Your task to perform on an android device: Open privacy settings Image 0: 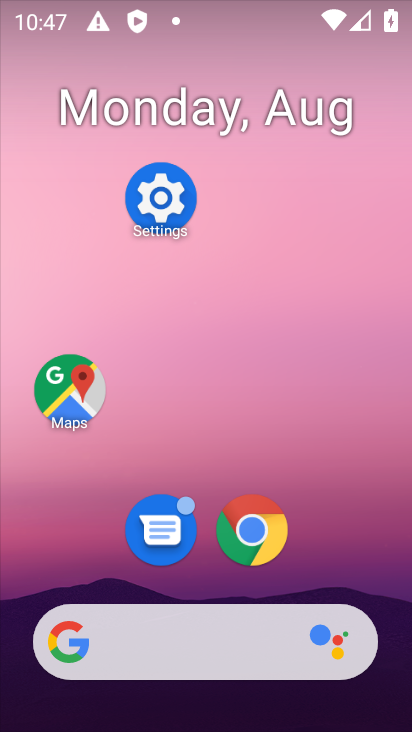
Step 0: drag from (229, 660) to (145, 435)
Your task to perform on an android device: Open privacy settings Image 1: 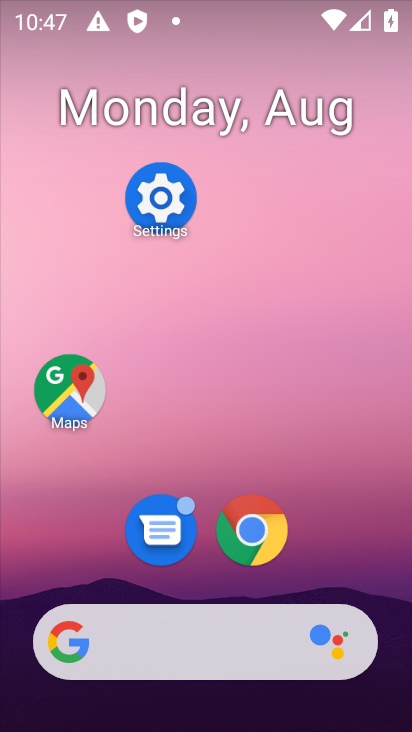
Step 1: drag from (252, 613) to (252, 248)
Your task to perform on an android device: Open privacy settings Image 2: 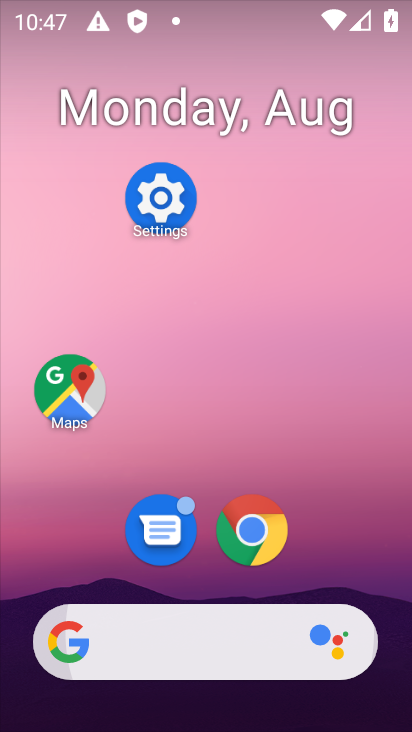
Step 2: drag from (253, 565) to (231, 267)
Your task to perform on an android device: Open privacy settings Image 3: 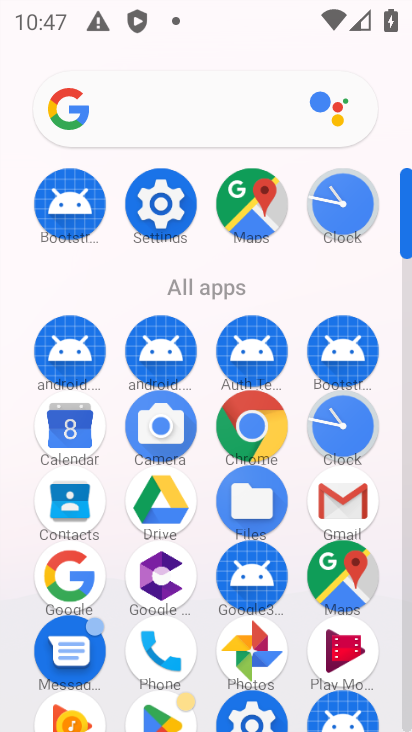
Step 3: click (160, 206)
Your task to perform on an android device: Open privacy settings Image 4: 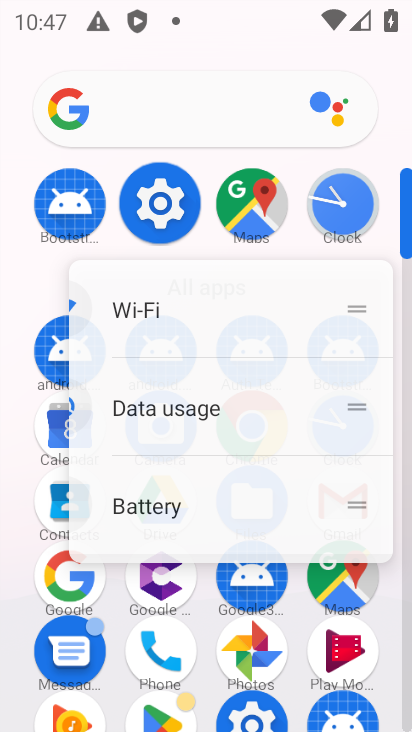
Step 4: click (159, 207)
Your task to perform on an android device: Open privacy settings Image 5: 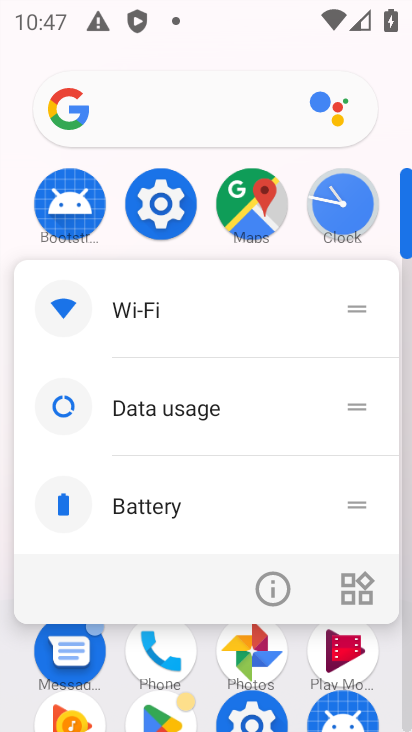
Step 5: click (164, 190)
Your task to perform on an android device: Open privacy settings Image 6: 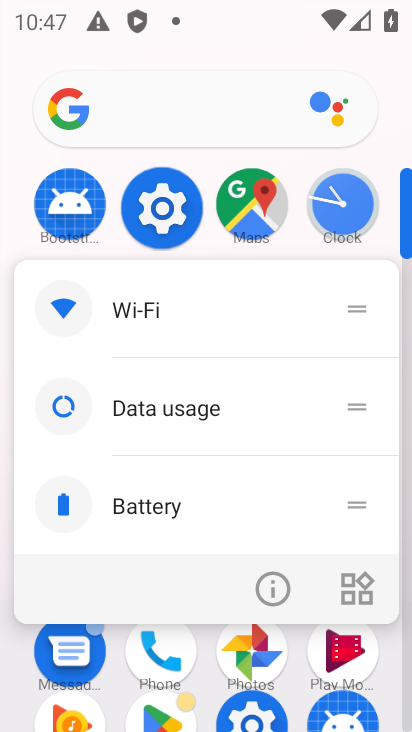
Step 6: click (164, 217)
Your task to perform on an android device: Open privacy settings Image 7: 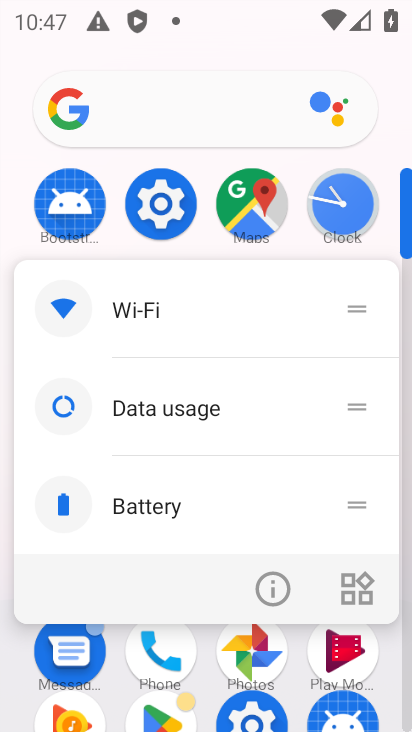
Step 7: click (163, 218)
Your task to perform on an android device: Open privacy settings Image 8: 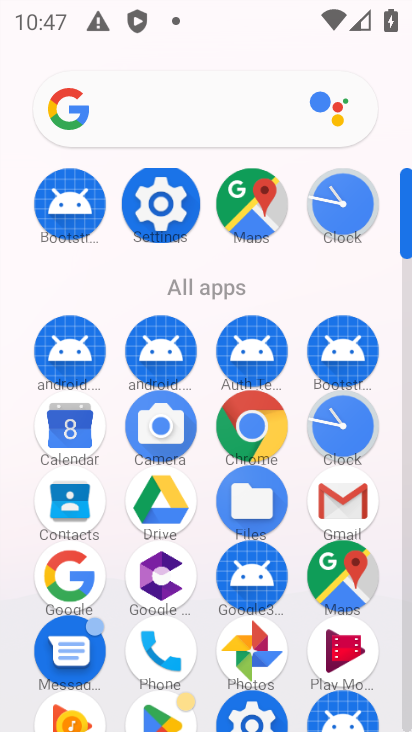
Step 8: click (162, 219)
Your task to perform on an android device: Open privacy settings Image 9: 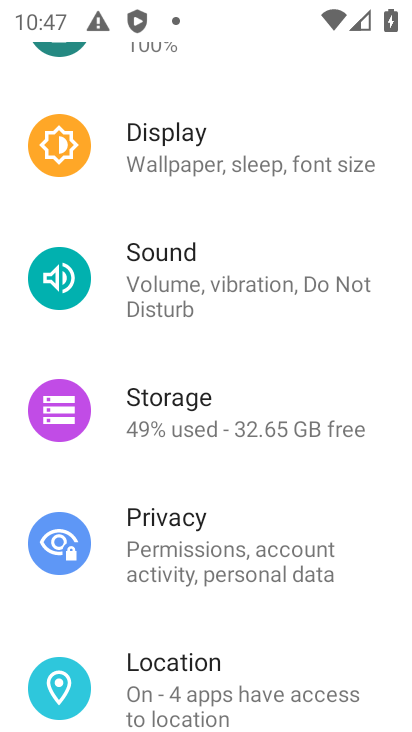
Step 9: click (162, 219)
Your task to perform on an android device: Open privacy settings Image 10: 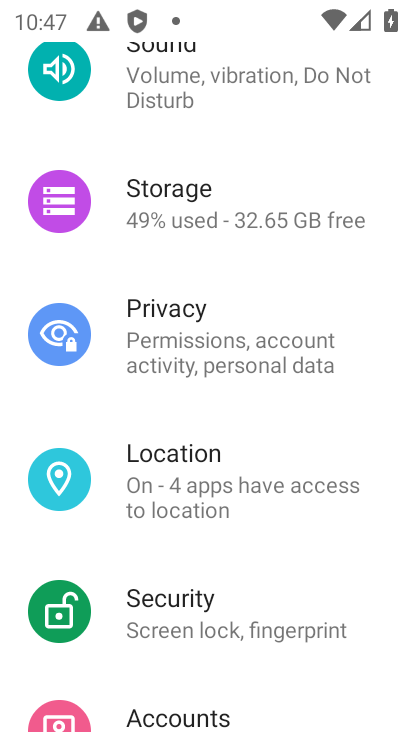
Step 10: click (162, 220)
Your task to perform on an android device: Open privacy settings Image 11: 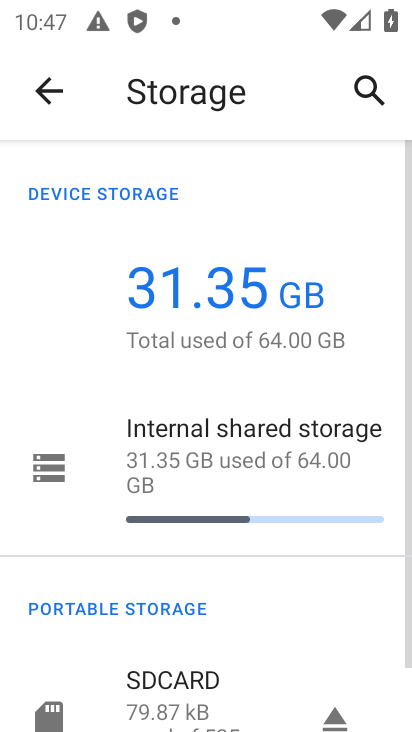
Step 11: click (42, 91)
Your task to perform on an android device: Open privacy settings Image 12: 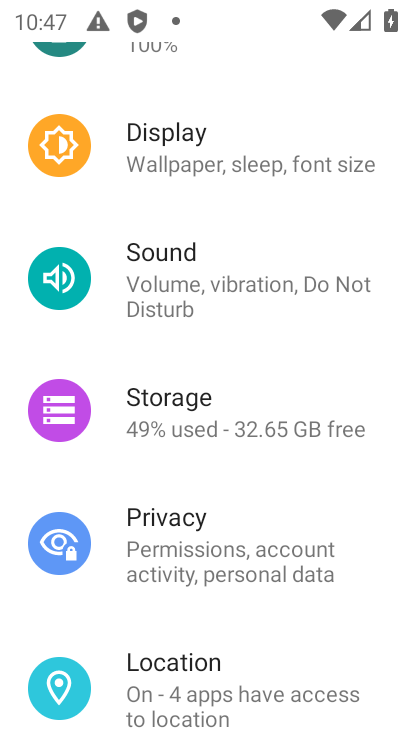
Step 12: click (163, 547)
Your task to perform on an android device: Open privacy settings Image 13: 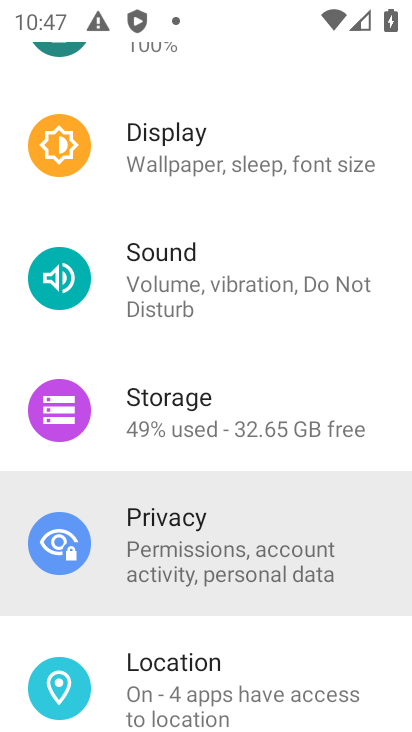
Step 13: click (171, 542)
Your task to perform on an android device: Open privacy settings Image 14: 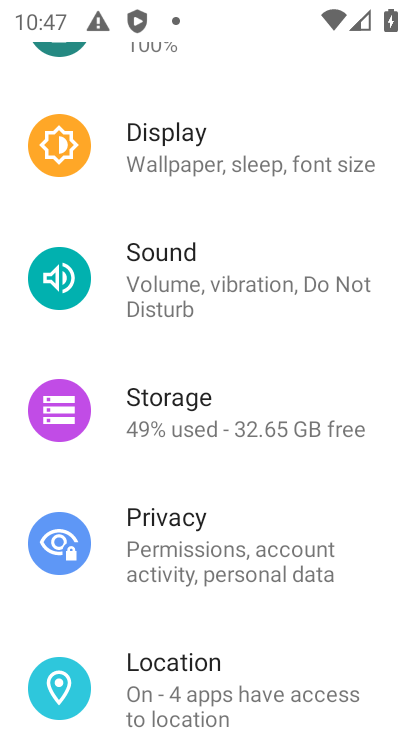
Step 14: click (173, 543)
Your task to perform on an android device: Open privacy settings Image 15: 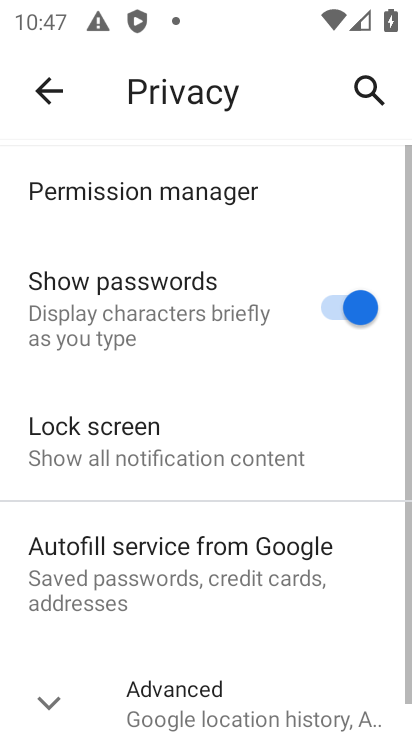
Step 15: click (177, 545)
Your task to perform on an android device: Open privacy settings Image 16: 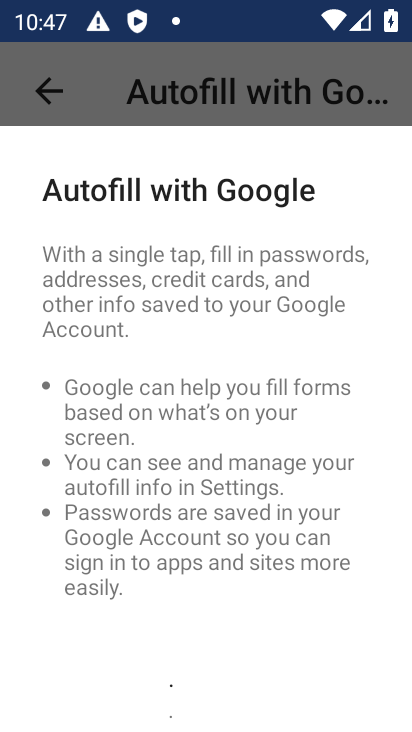
Step 16: task complete